Your task to perform on an android device: turn on airplane mode Image 0: 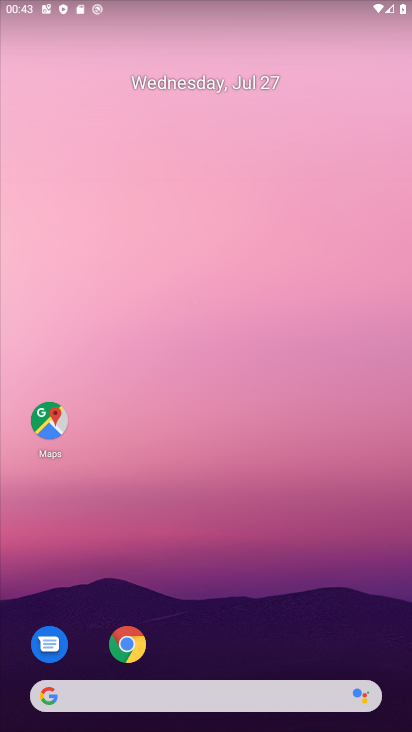
Step 0: drag from (196, 142) to (197, 84)
Your task to perform on an android device: turn on airplane mode Image 1: 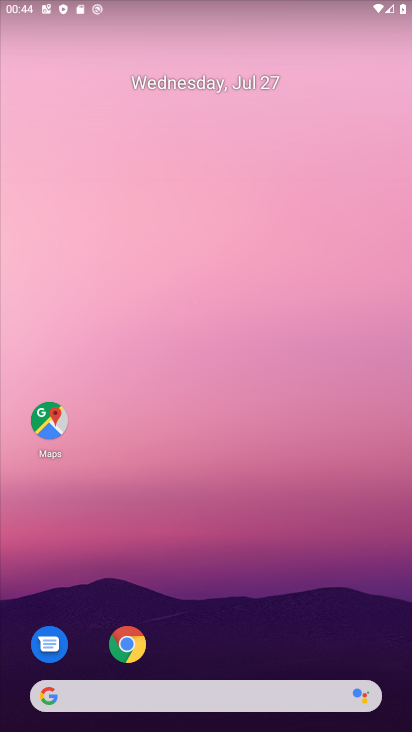
Step 1: drag from (285, 660) to (223, 128)
Your task to perform on an android device: turn on airplane mode Image 2: 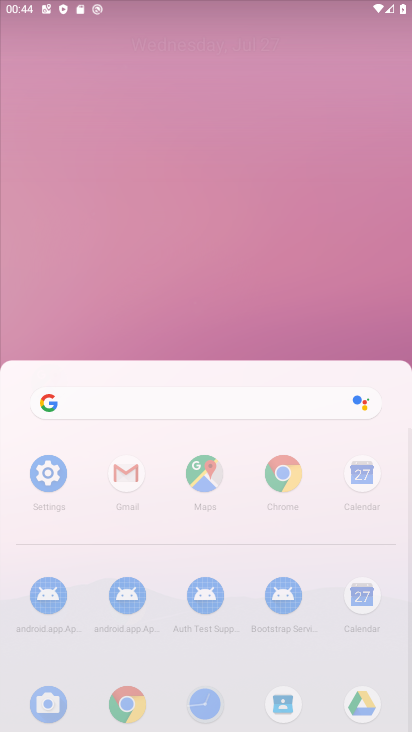
Step 2: drag from (145, 667) to (155, 85)
Your task to perform on an android device: turn on airplane mode Image 3: 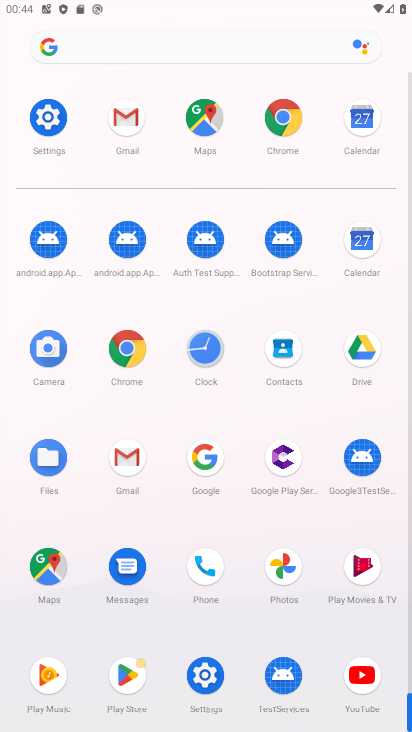
Step 3: drag from (202, 393) to (172, 40)
Your task to perform on an android device: turn on airplane mode Image 4: 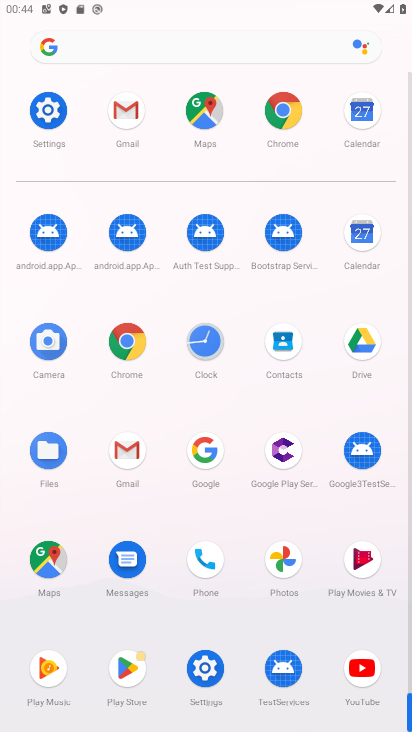
Step 4: click (50, 109)
Your task to perform on an android device: turn on airplane mode Image 5: 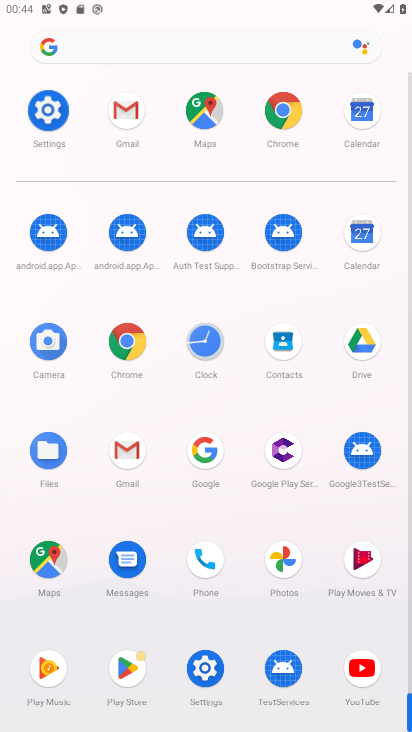
Step 5: click (57, 113)
Your task to perform on an android device: turn on airplane mode Image 6: 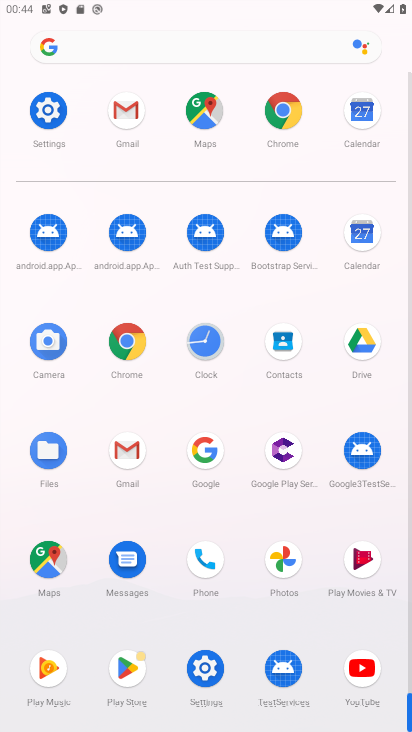
Step 6: click (53, 112)
Your task to perform on an android device: turn on airplane mode Image 7: 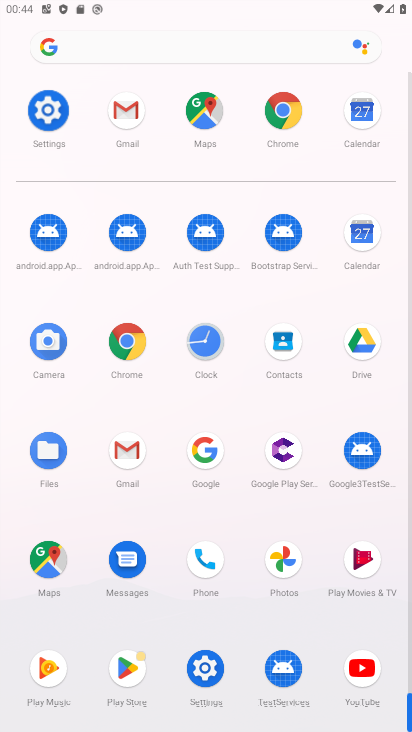
Step 7: click (51, 111)
Your task to perform on an android device: turn on airplane mode Image 8: 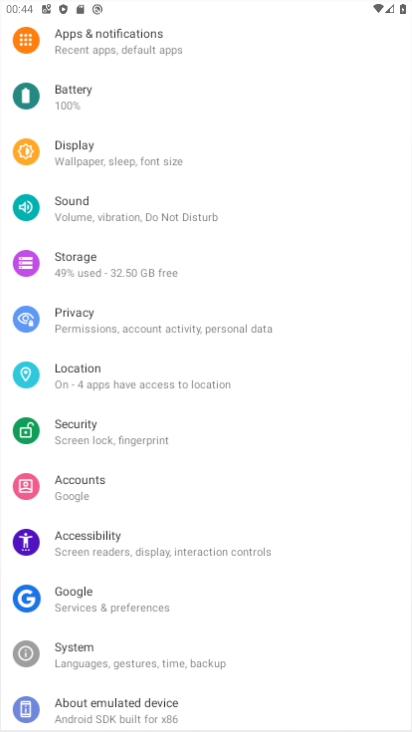
Step 8: click (62, 112)
Your task to perform on an android device: turn on airplane mode Image 9: 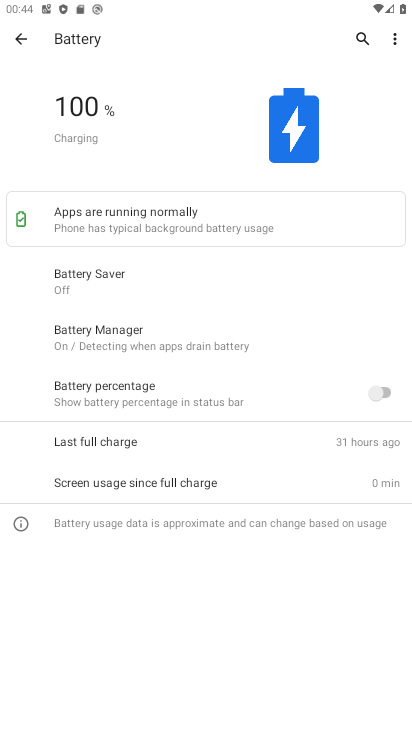
Step 9: click (27, 34)
Your task to perform on an android device: turn on airplane mode Image 10: 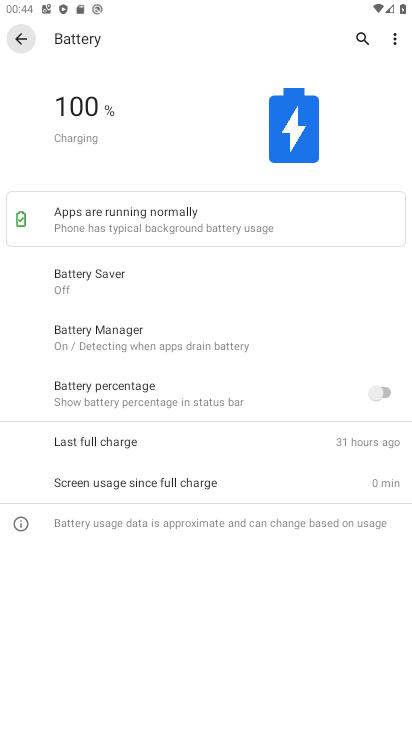
Step 10: click (25, 34)
Your task to perform on an android device: turn on airplane mode Image 11: 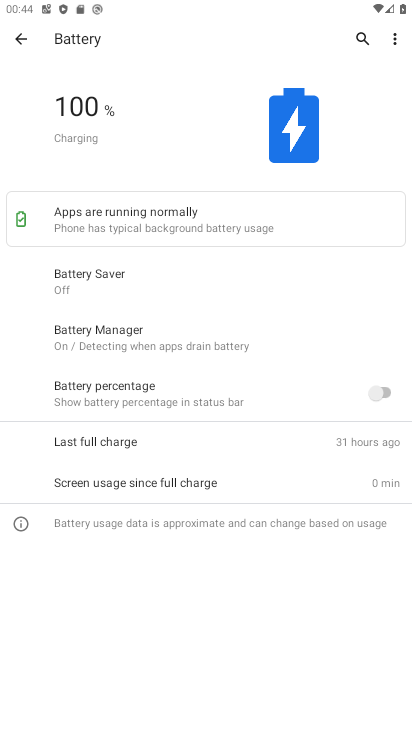
Step 11: click (25, 34)
Your task to perform on an android device: turn on airplane mode Image 12: 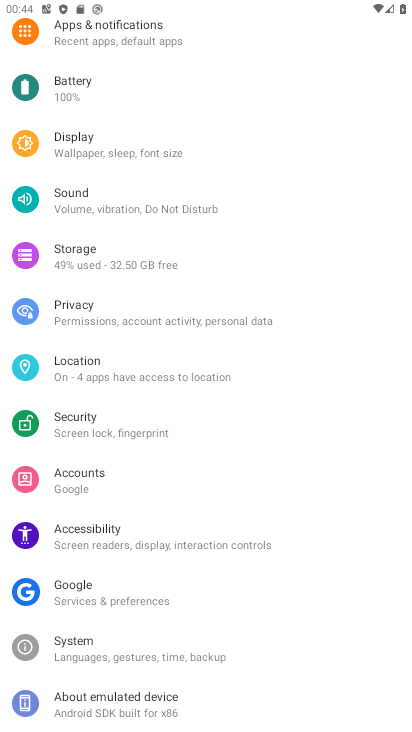
Step 12: drag from (115, 149) to (162, 468)
Your task to perform on an android device: turn on airplane mode Image 13: 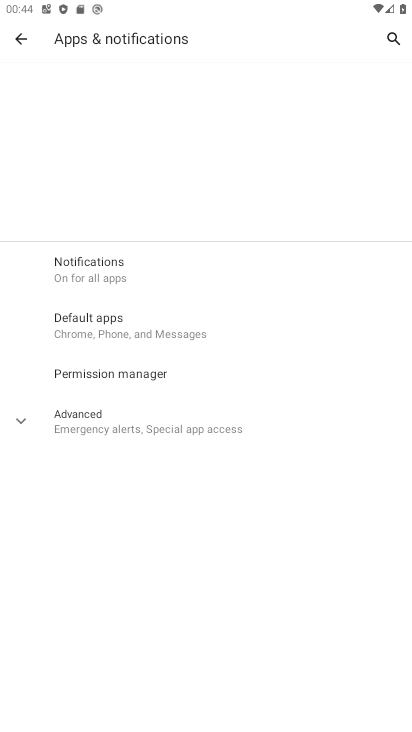
Step 13: drag from (158, 134) to (211, 490)
Your task to perform on an android device: turn on airplane mode Image 14: 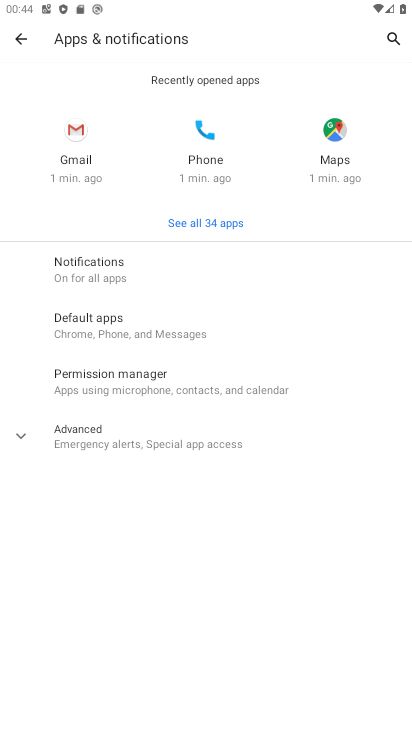
Step 14: click (23, 31)
Your task to perform on an android device: turn on airplane mode Image 15: 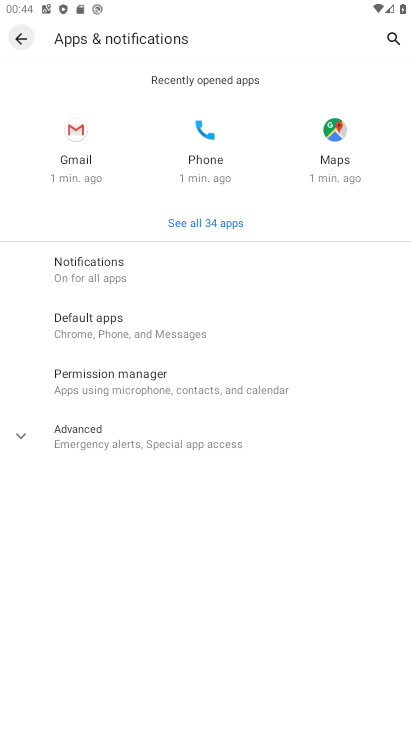
Step 15: click (2, 50)
Your task to perform on an android device: turn on airplane mode Image 16: 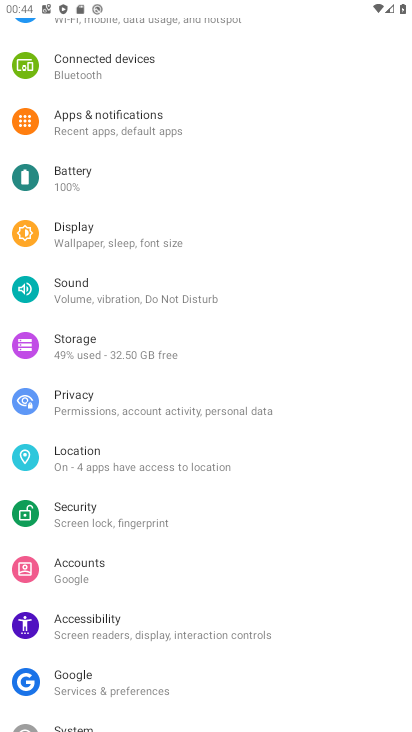
Step 16: drag from (111, 72) to (124, 471)
Your task to perform on an android device: turn on airplane mode Image 17: 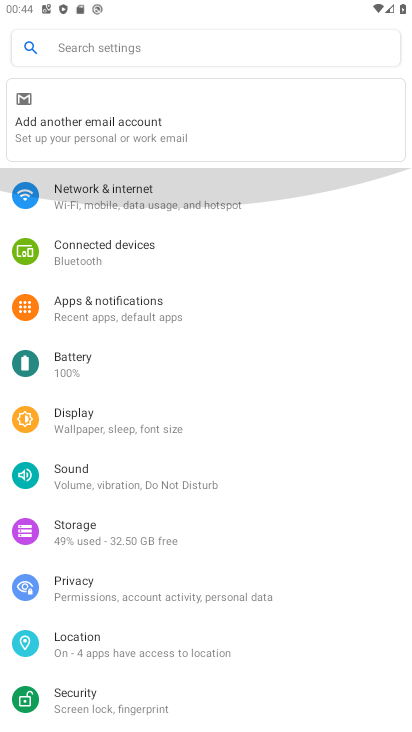
Step 17: drag from (126, 94) to (151, 543)
Your task to perform on an android device: turn on airplane mode Image 18: 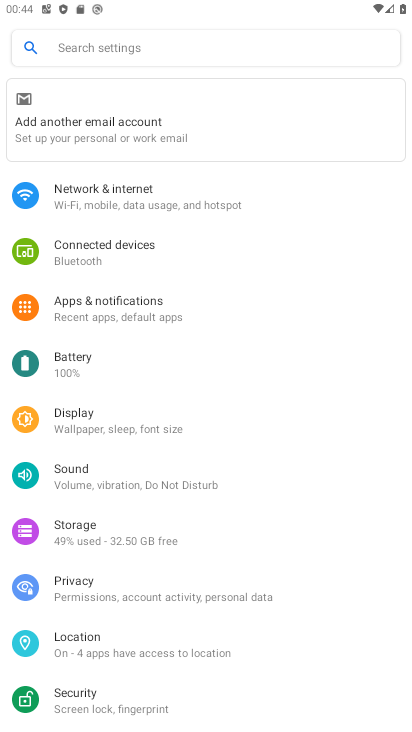
Step 18: click (118, 205)
Your task to perform on an android device: turn on airplane mode Image 19: 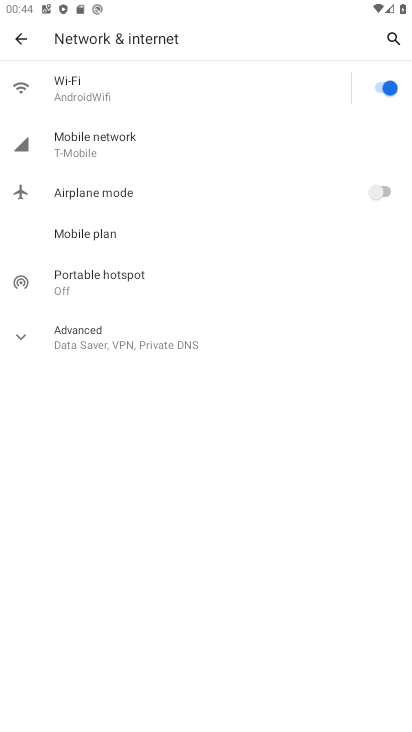
Step 19: click (378, 190)
Your task to perform on an android device: turn on airplane mode Image 20: 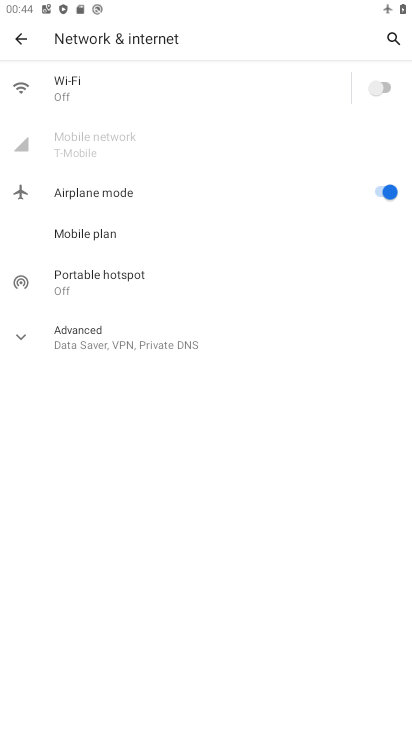
Step 20: task complete